Your task to perform on an android device: Go to Google Image 0: 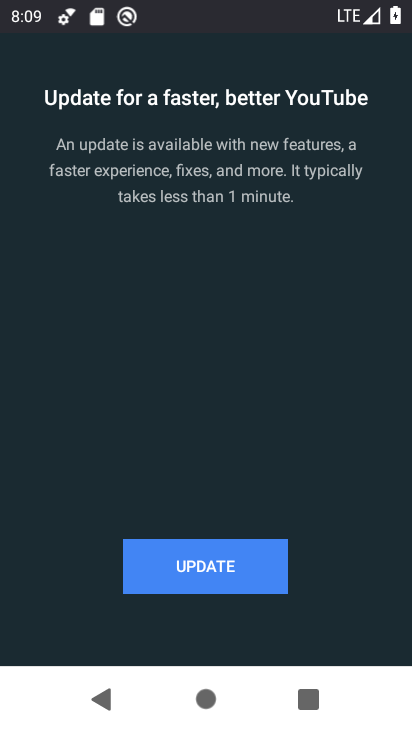
Step 0: press back button
Your task to perform on an android device: Go to Google Image 1: 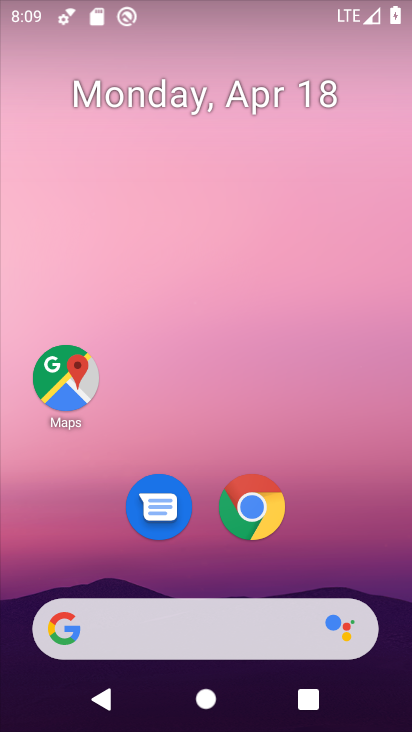
Step 1: drag from (29, 512) to (276, 56)
Your task to perform on an android device: Go to Google Image 2: 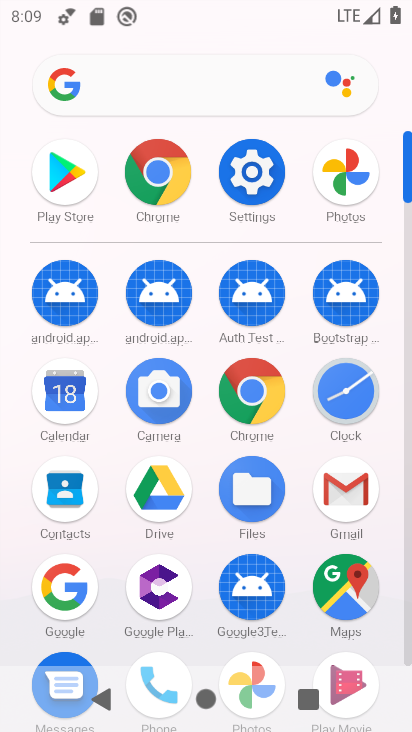
Step 2: click (56, 580)
Your task to perform on an android device: Go to Google Image 3: 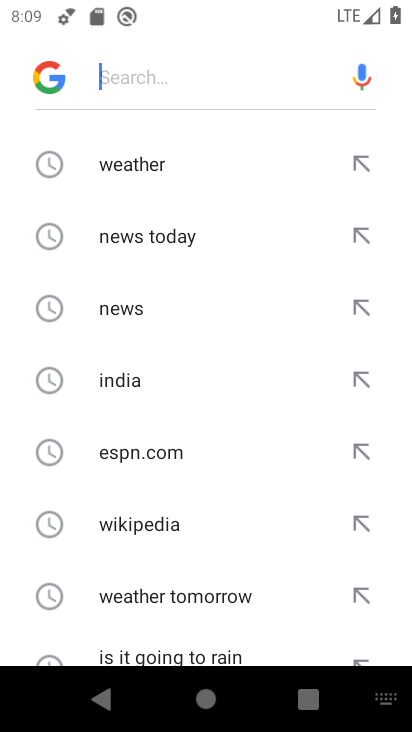
Step 3: task complete